Your task to perform on an android device: Show me the alarms in the clock app Image 0: 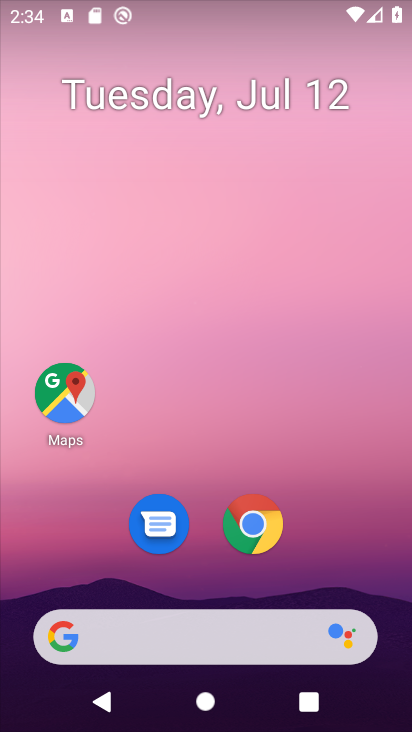
Step 0: drag from (334, 544) to (308, 1)
Your task to perform on an android device: Show me the alarms in the clock app Image 1: 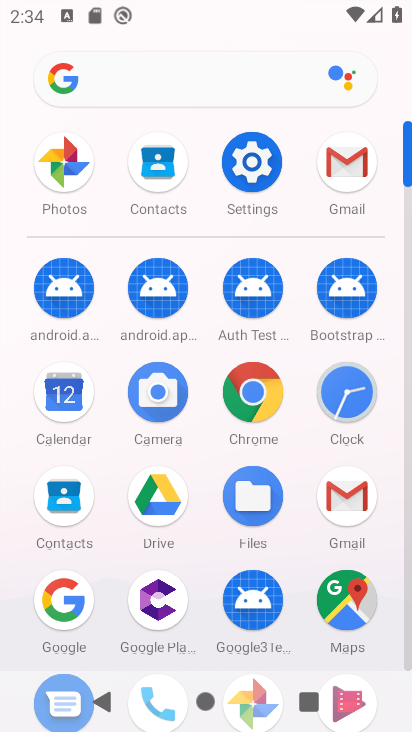
Step 1: click (344, 393)
Your task to perform on an android device: Show me the alarms in the clock app Image 2: 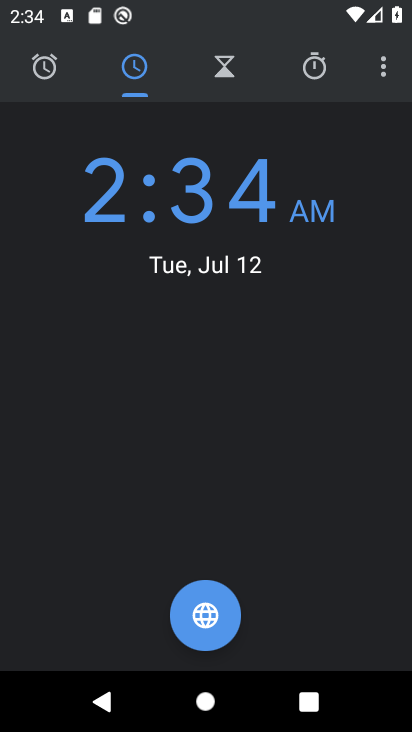
Step 2: click (42, 72)
Your task to perform on an android device: Show me the alarms in the clock app Image 3: 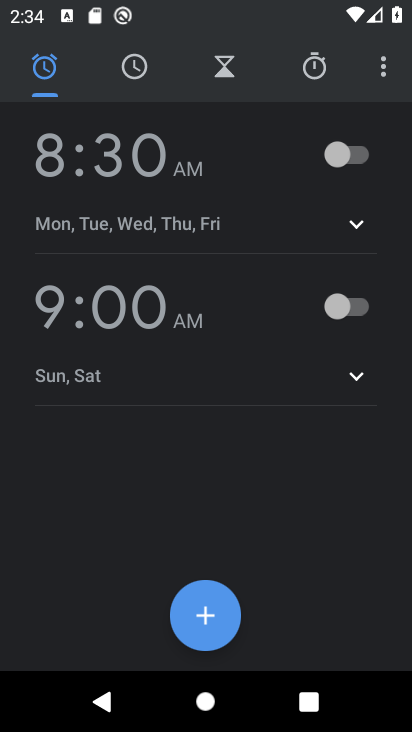
Step 3: task complete